Your task to perform on an android device: turn off picture-in-picture Image 0: 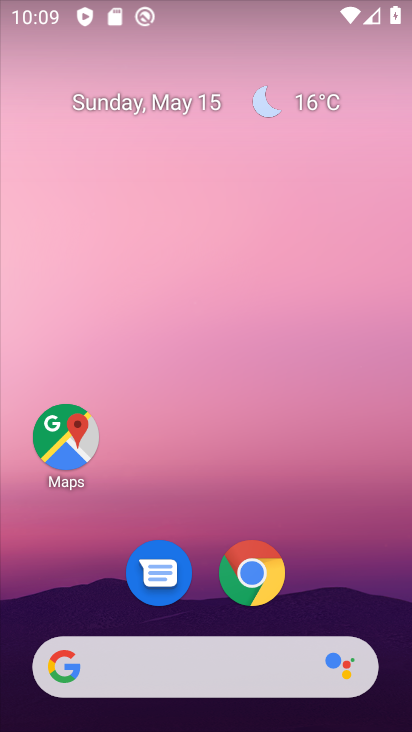
Step 0: drag from (327, 590) to (283, 134)
Your task to perform on an android device: turn off picture-in-picture Image 1: 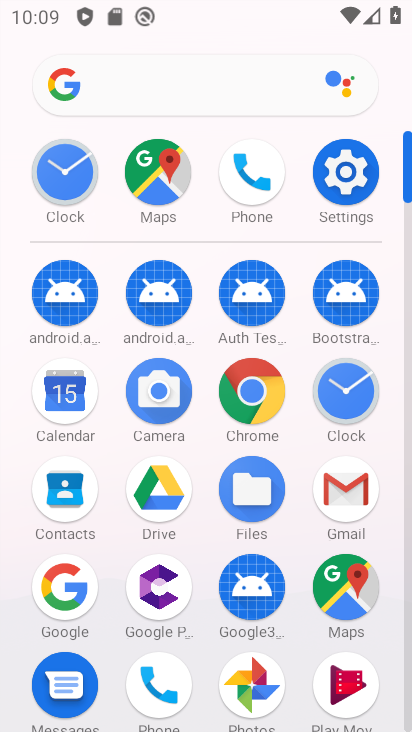
Step 1: drag from (289, 645) to (338, 281)
Your task to perform on an android device: turn off picture-in-picture Image 2: 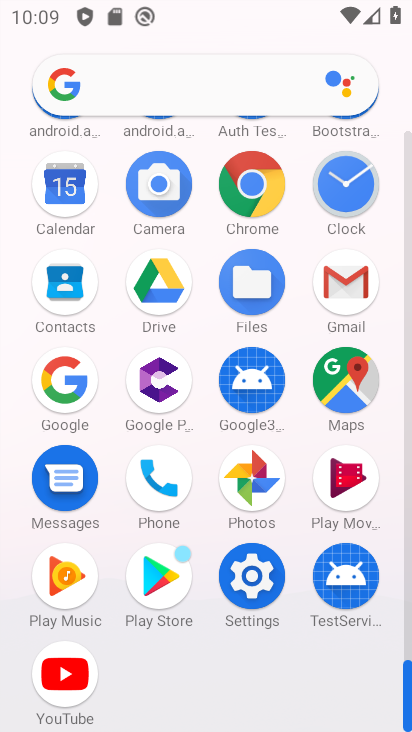
Step 2: click (250, 590)
Your task to perform on an android device: turn off picture-in-picture Image 3: 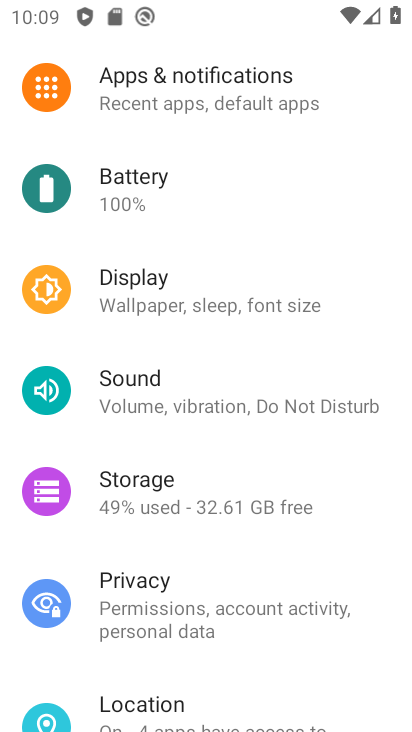
Step 3: click (181, 113)
Your task to perform on an android device: turn off picture-in-picture Image 4: 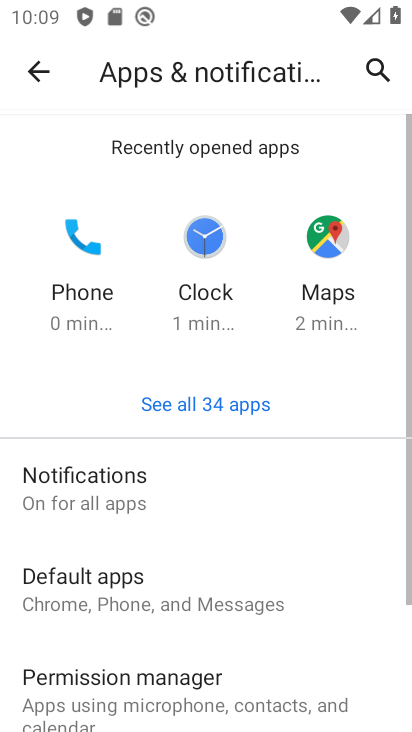
Step 4: drag from (194, 676) to (182, 165)
Your task to perform on an android device: turn off picture-in-picture Image 5: 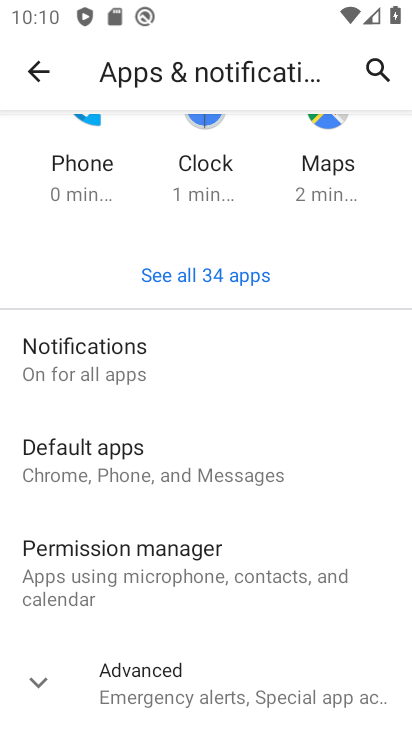
Step 5: click (126, 684)
Your task to perform on an android device: turn off picture-in-picture Image 6: 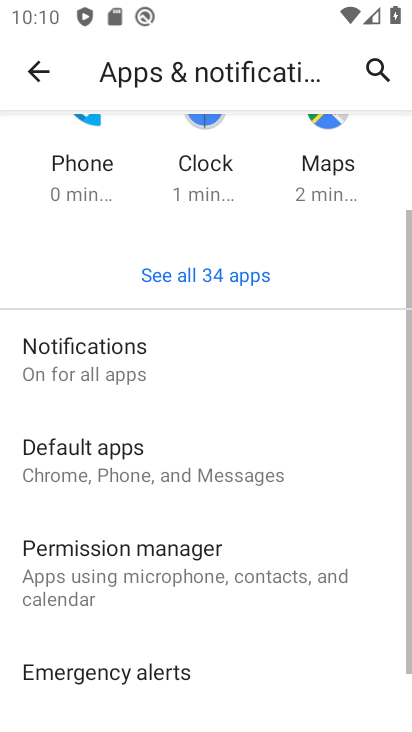
Step 6: drag from (215, 703) to (252, 93)
Your task to perform on an android device: turn off picture-in-picture Image 7: 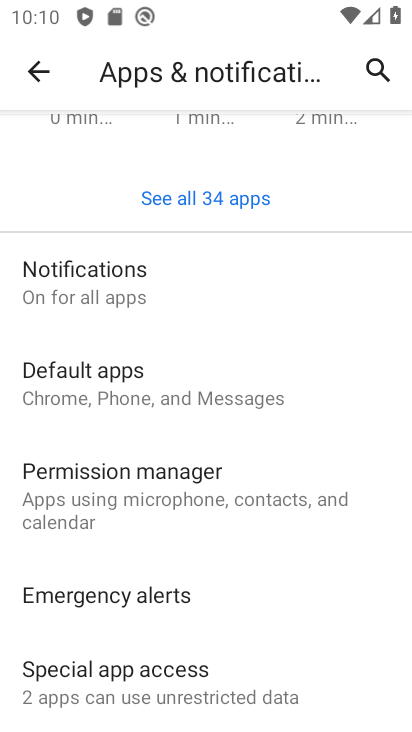
Step 7: click (118, 686)
Your task to perform on an android device: turn off picture-in-picture Image 8: 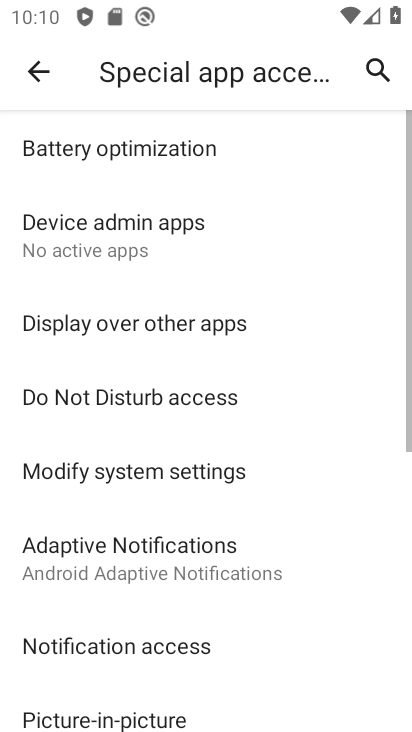
Step 8: drag from (121, 684) to (155, 274)
Your task to perform on an android device: turn off picture-in-picture Image 9: 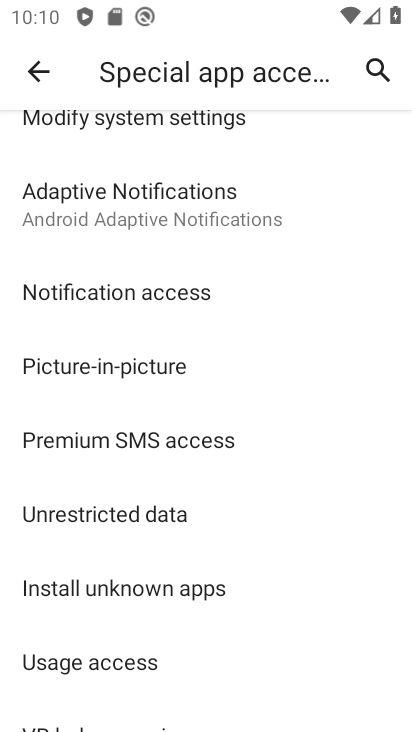
Step 9: click (141, 381)
Your task to perform on an android device: turn off picture-in-picture Image 10: 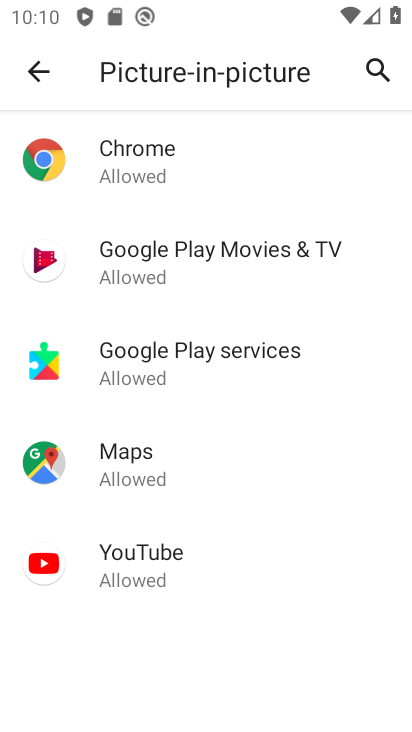
Step 10: click (137, 164)
Your task to perform on an android device: turn off picture-in-picture Image 11: 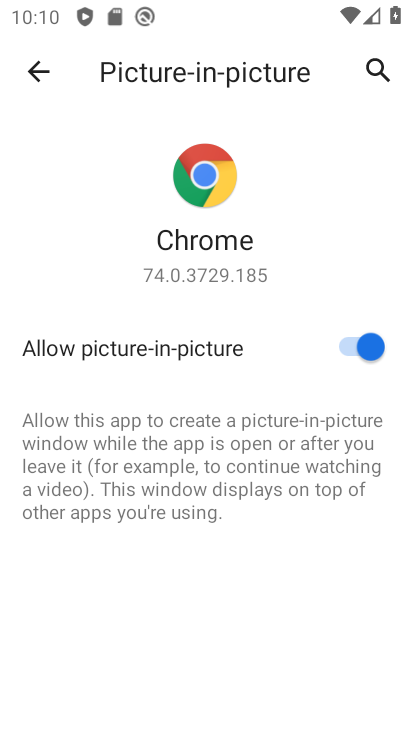
Step 11: click (355, 349)
Your task to perform on an android device: turn off picture-in-picture Image 12: 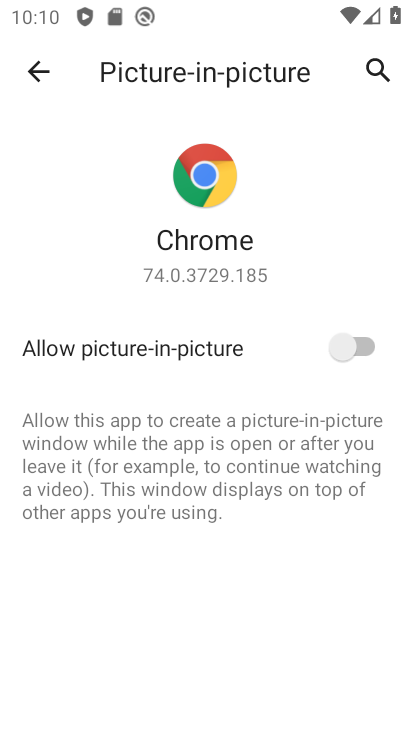
Step 12: task complete